Your task to perform on an android device: read, delete, or share a saved page in the chrome app Image 0: 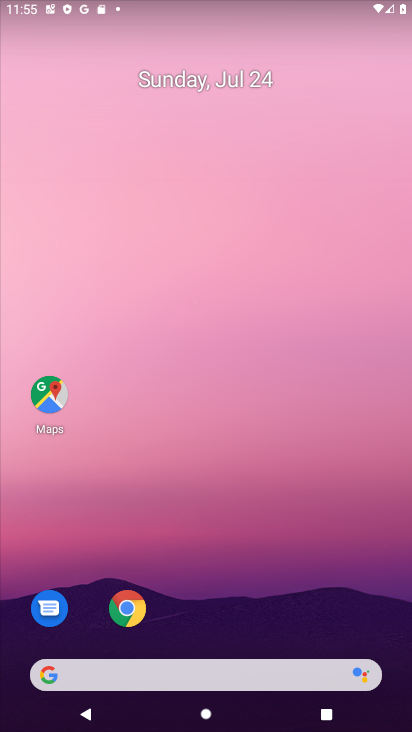
Step 0: drag from (218, 476) to (250, 138)
Your task to perform on an android device: read, delete, or share a saved page in the chrome app Image 1: 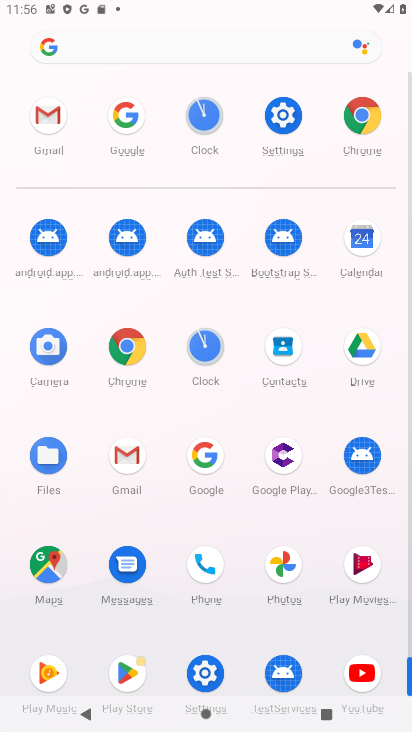
Step 1: click (370, 108)
Your task to perform on an android device: read, delete, or share a saved page in the chrome app Image 2: 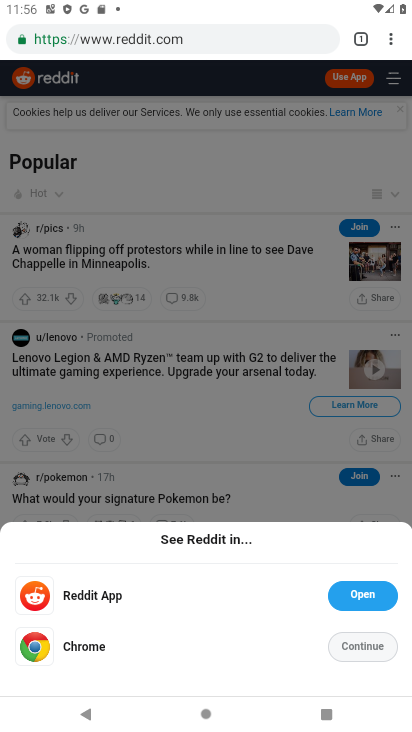
Step 2: task complete